Your task to perform on an android device: turn on translation in the chrome app Image 0: 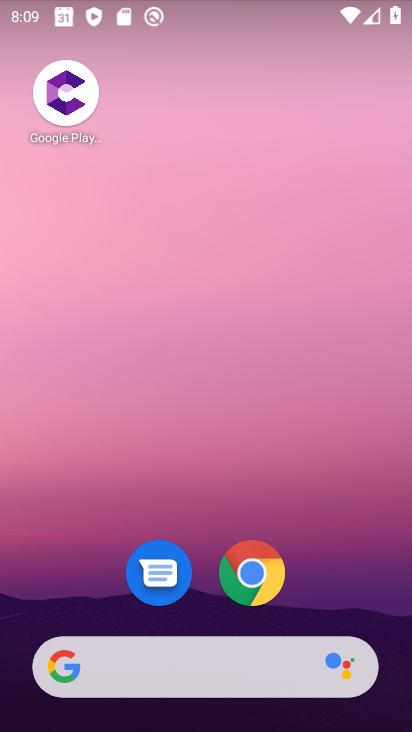
Step 0: click (258, 588)
Your task to perform on an android device: turn on translation in the chrome app Image 1: 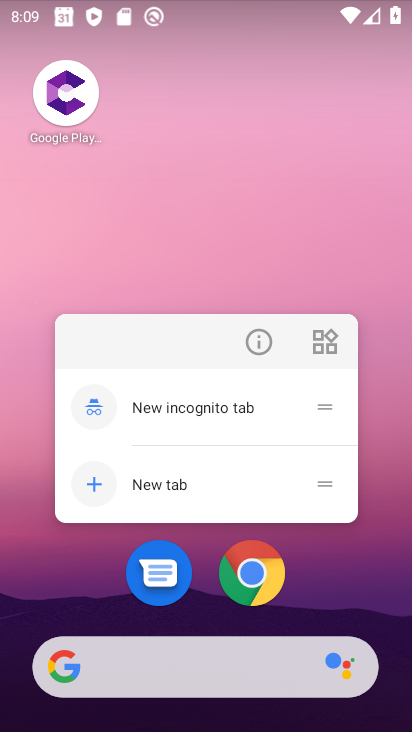
Step 1: click (259, 580)
Your task to perform on an android device: turn on translation in the chrome app Image 2: 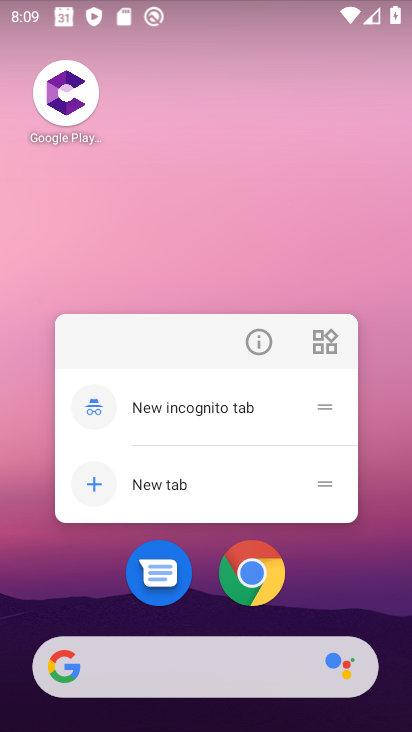
Step 2: click (264, 560)
Your task to perform on an android device: turn on translation in the chrome app Image 3: 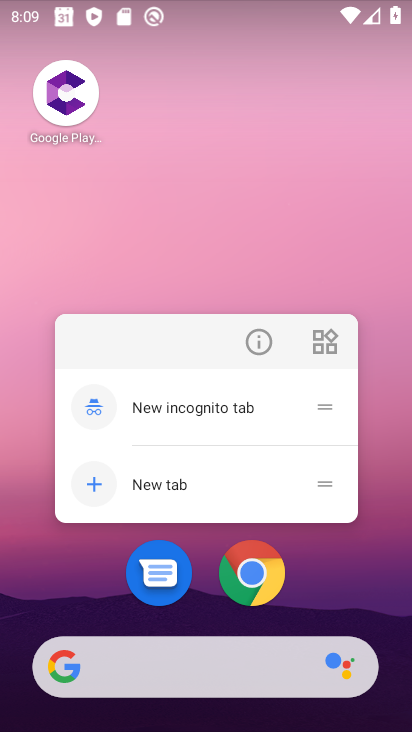
Step 3: click (259, 577)
Your task to perform on an android device: turn on translation in the chrome app Image 4: 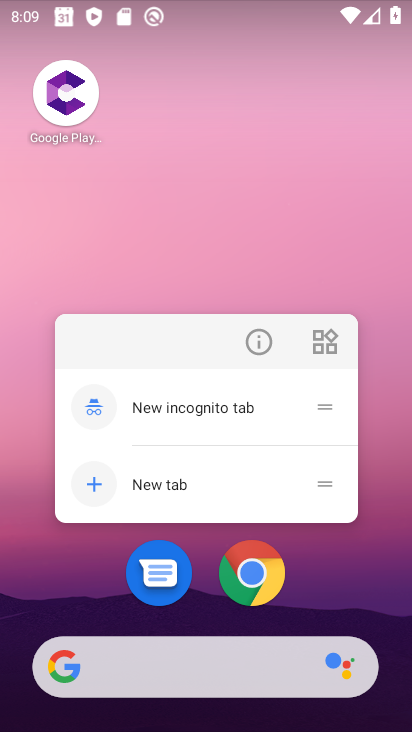
Step 4: click (259, 589)
Your task to perform on an android device: turn on translation in the chrome app Image 5: 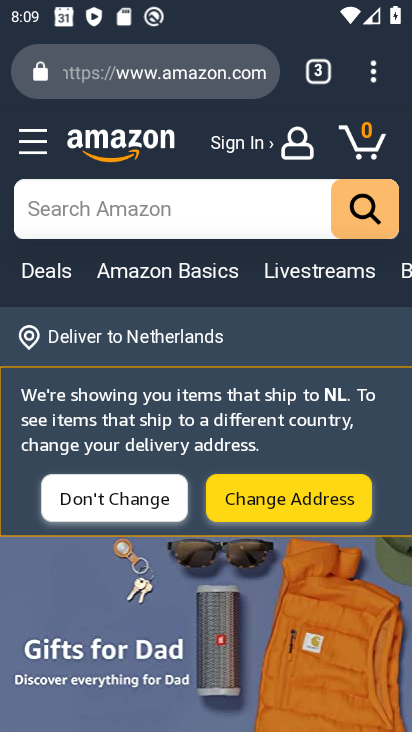
Step 5: drag from (386, 85) to (228, 568)
Your task to perform on an android device: turn on translation in the chrome app Image 6: 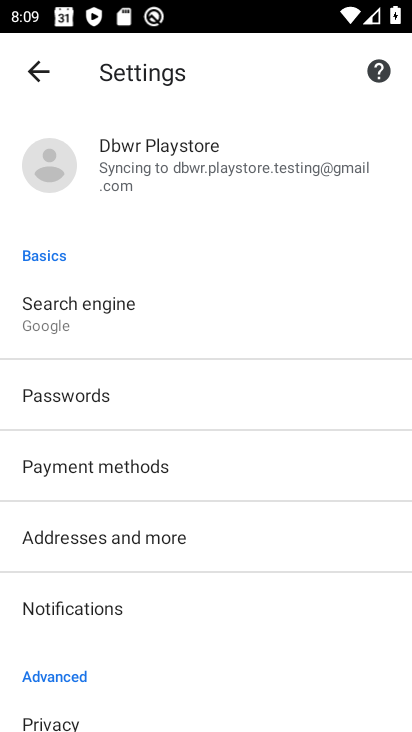
Step 6: drag from (240, 556) to (327, 234)
Your task to perform on an android device: turn on translation in the chrome app Image 7: 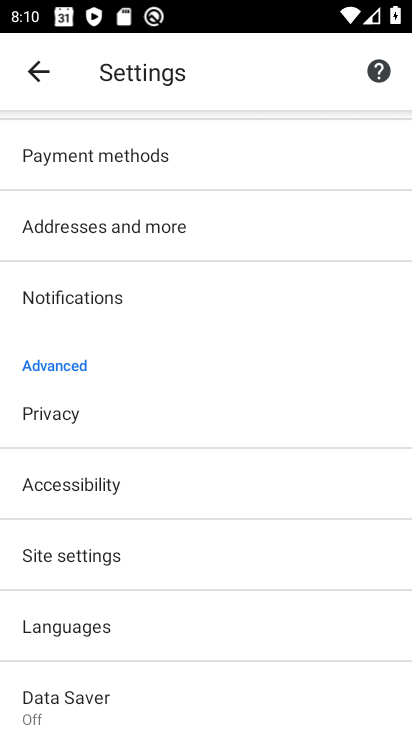
Step 7: click (196, 639)
Your task to perform on an android device: turn on translation in the chrome app Image 8: 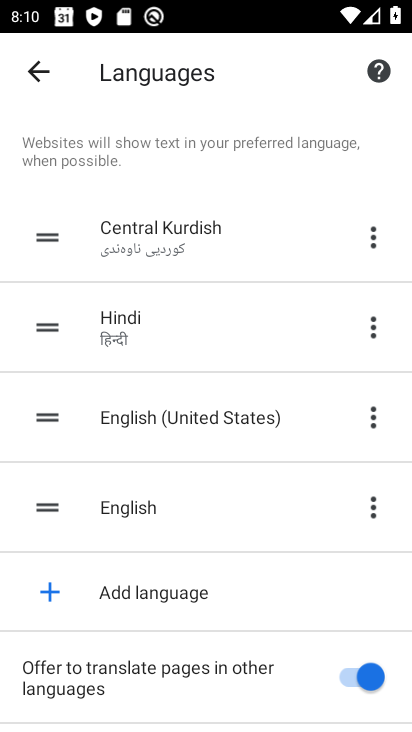
Step 8: task complete